Your task to perform on an android device: Open sound settings Image 0: 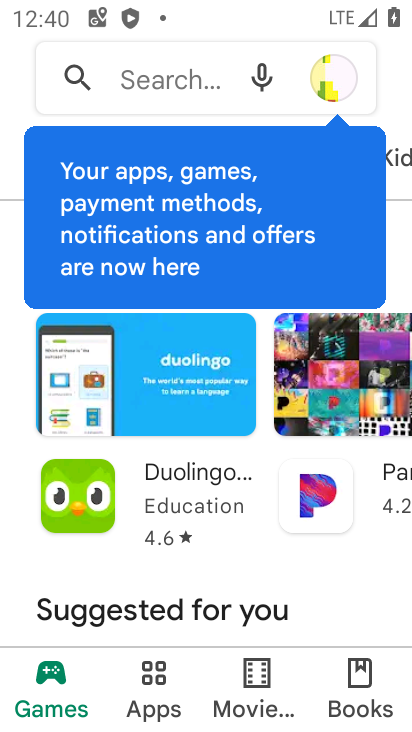
Step 0: press home button
Your task to perform on an android device: Open sound settings Image 1: 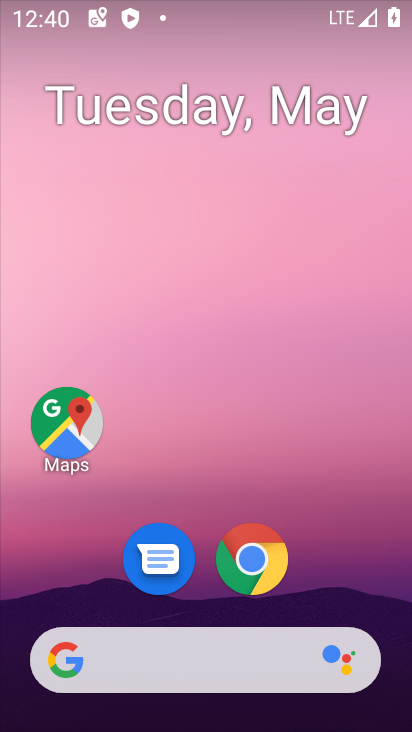
Step 1: drag from (347, 572) to (301, 127)
Your task to perform on an android device: Open sound settings Image 2: 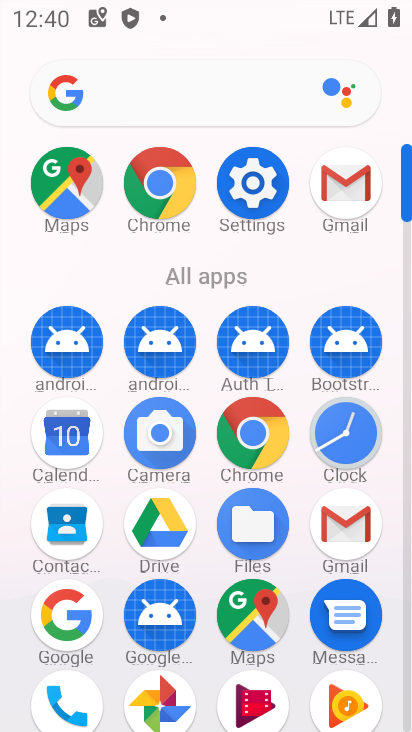
Step 2: click (274, 186)
Your task to perform on an android device: Open sound settings Image 3: 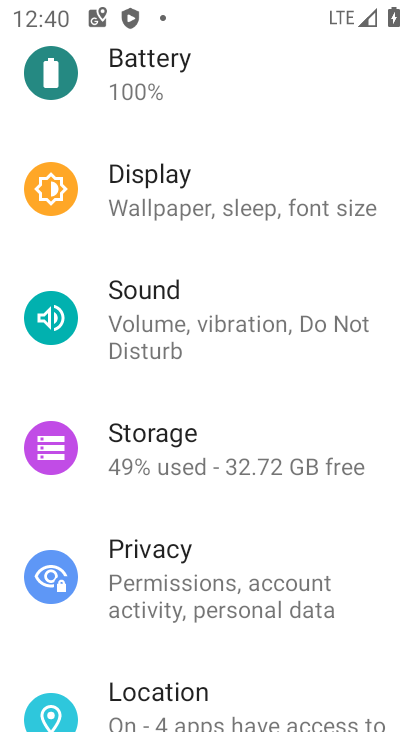
Step 3: drag from (259, 617) to (259, 498)
Your task to perform on an android device: Open sound settings Image 4: 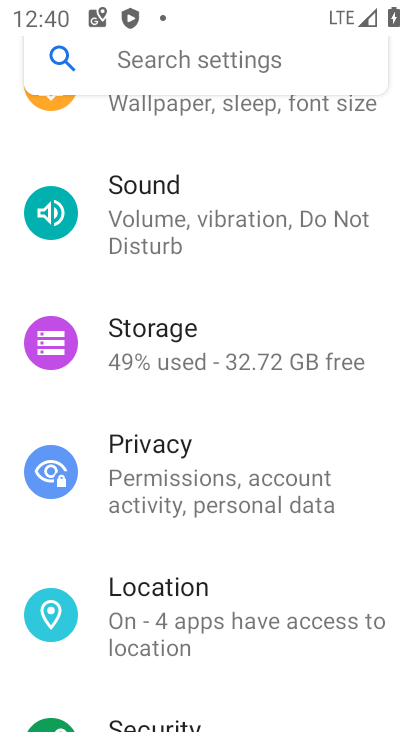
Step 4: click (219, 219)
Your task to perform on an android device: Open sound settings Image 5: 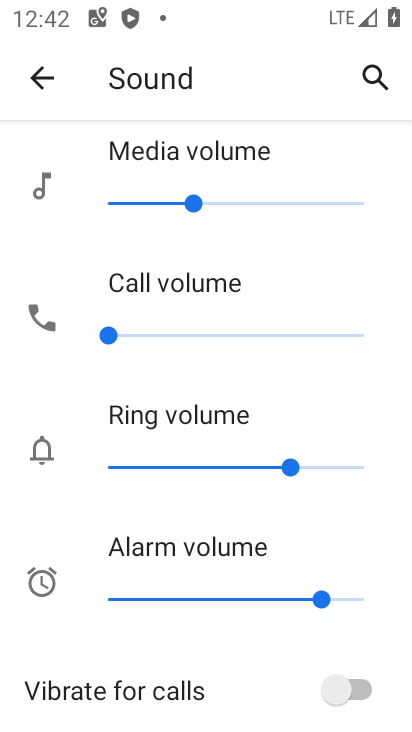
Step 5: task complete